Your task to perform on an android device: Do I have any events this weekend? Image 0: 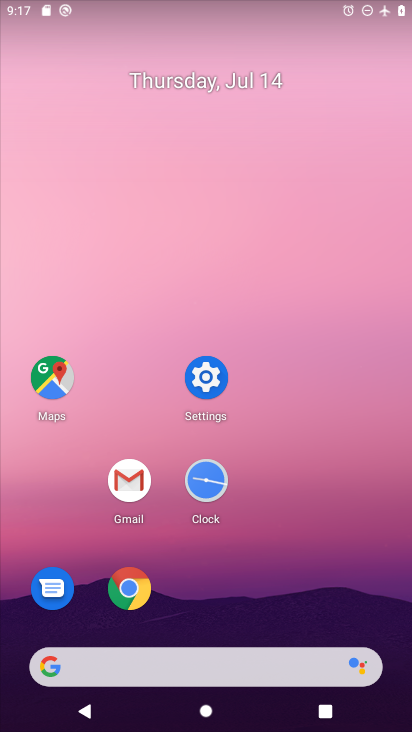
Step 0: drag from (370, 661) to (315, 214)
Your task to perform on an android device: Do I have any events this weekend? Image 1: 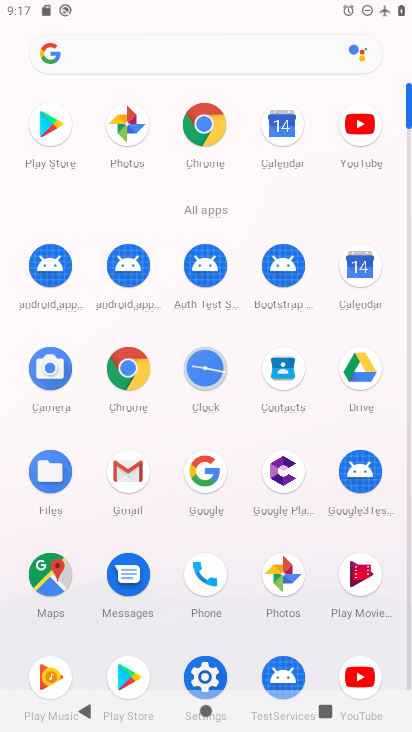
Step 1: click (362, 260)
Your task to perform on an android device: Do I have any events this weekend? Image 2: 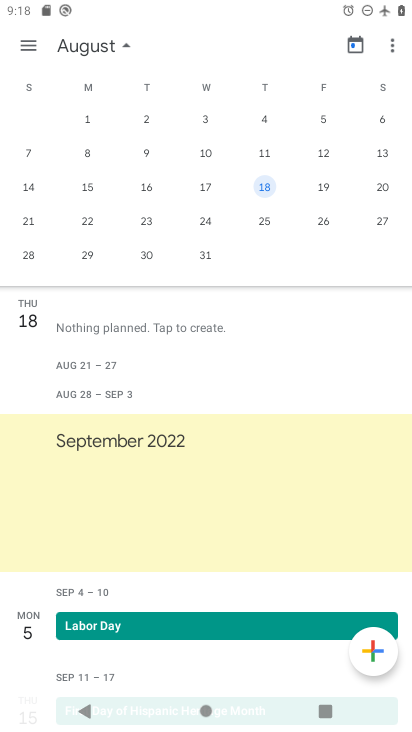
Step 2: click (27, 43)
Your task to perform on an android device: Do I have any events this weekend? Image 3: 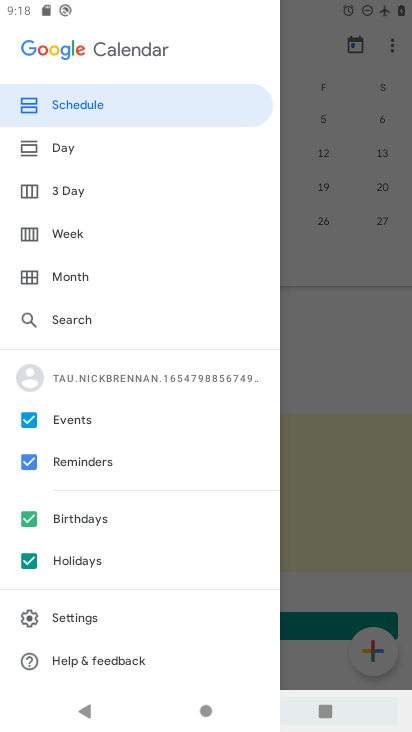
Step 3: click (69, 231)
Your task to perform on an android device: Do I have any events this weekend? Image 4: 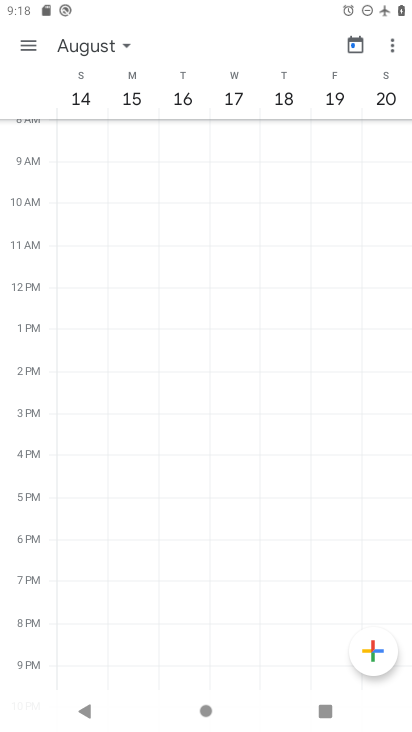
Step 4: task complete